Your task to perform on an android device: What is the news today? Image 0: 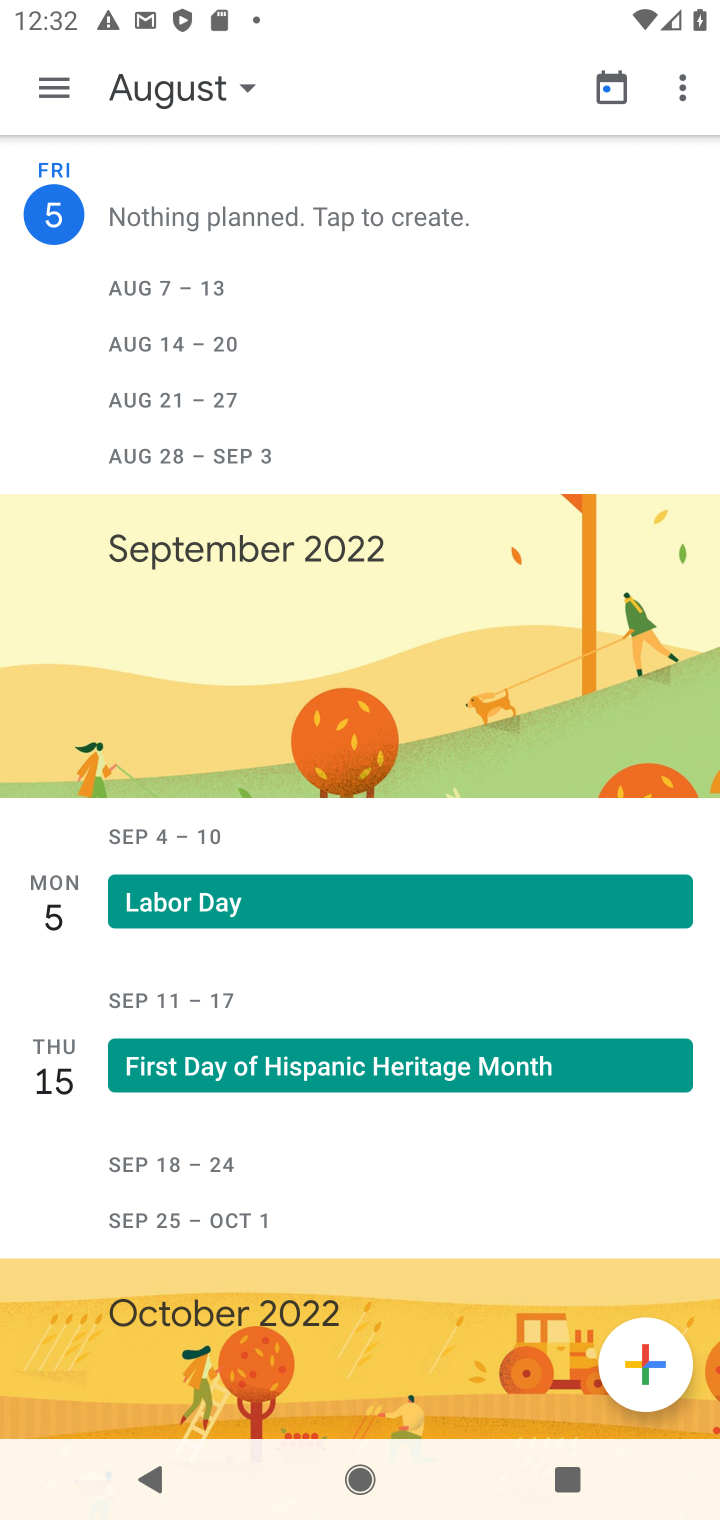
Step 0: press home button
Your task to perform on an android device: What is the news today? Image 1: 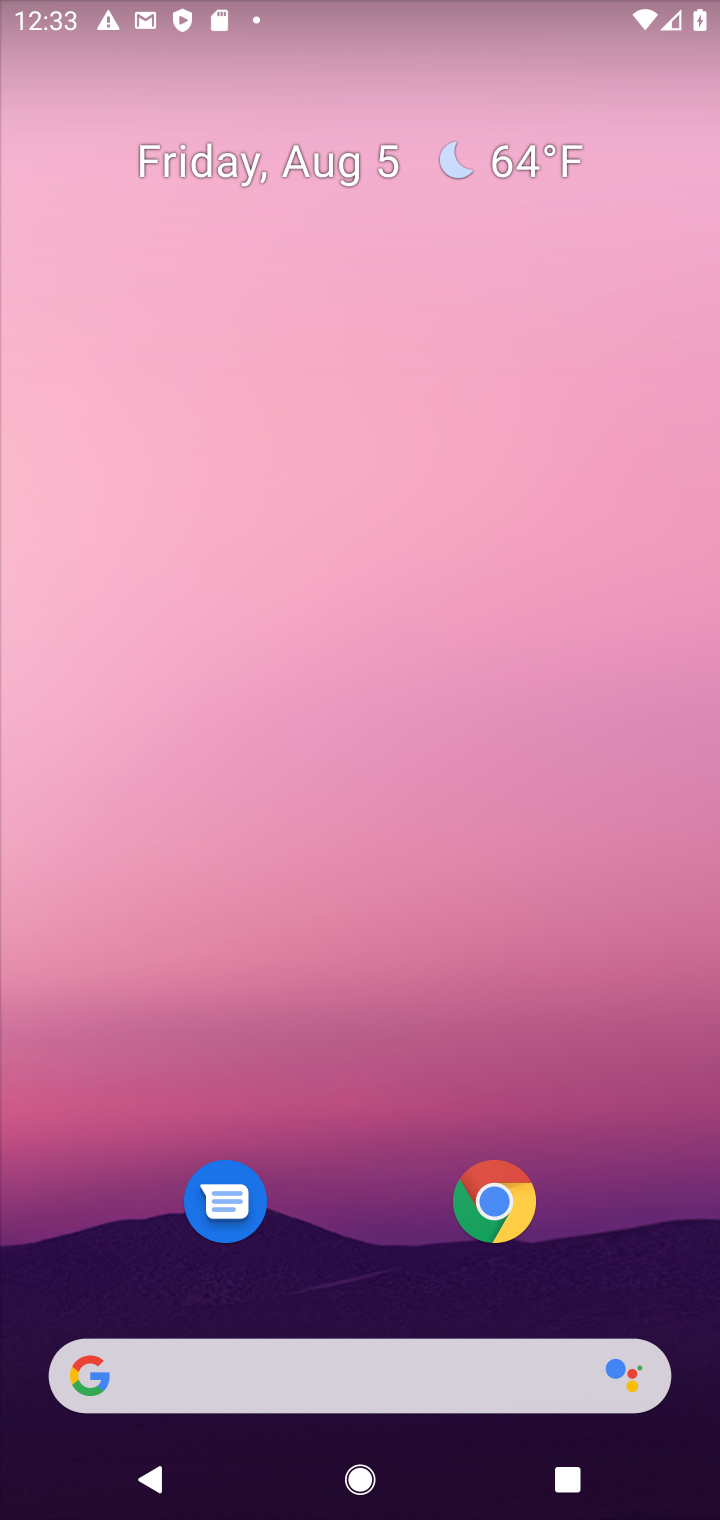
Step 1: task complete